Your task to perform on an android device: refresh tabs in the chrome app Image 0: 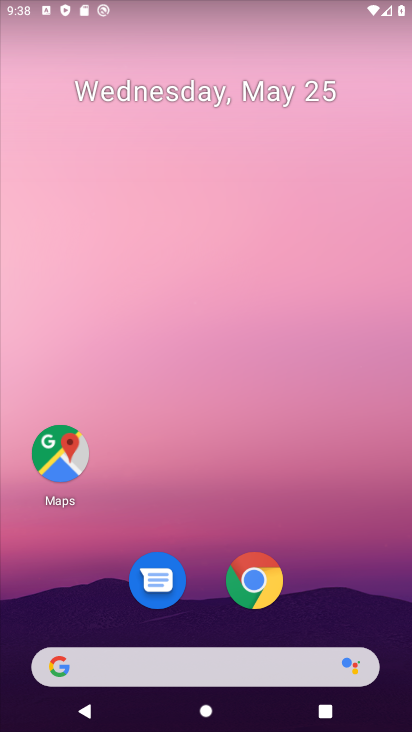
Step 0: press home button
Your task to perform on an android device: refresh tabs in the chrome app Image 1: 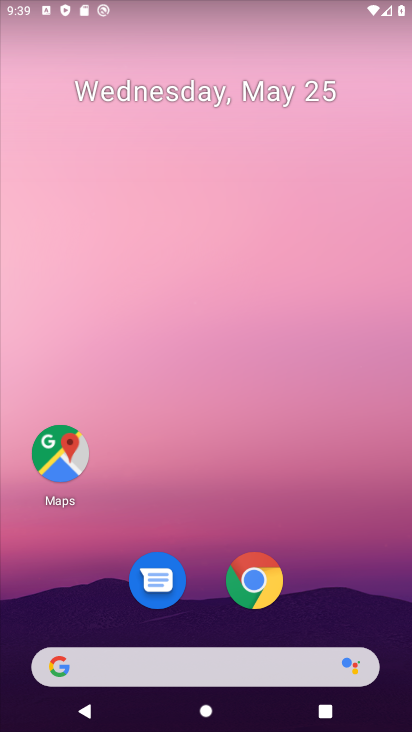
Step 1: click (280, 576)
Your task to perform on an android device: refresh tabs in the chrome app Image 2: 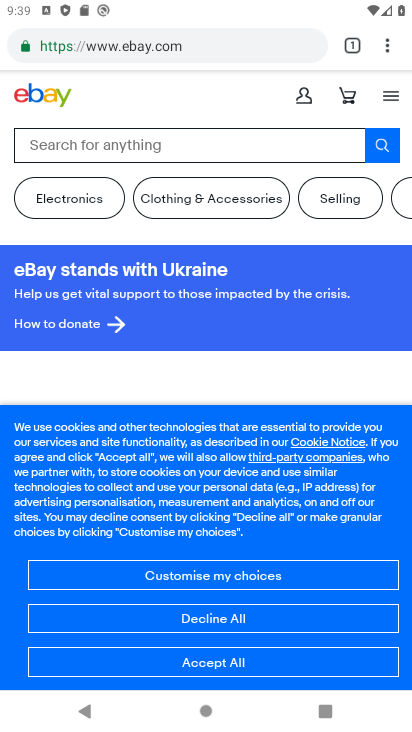
Step 2: click (386, 48)
Your task to perform on an android device: refresh tabs in the chrome app Image 3: 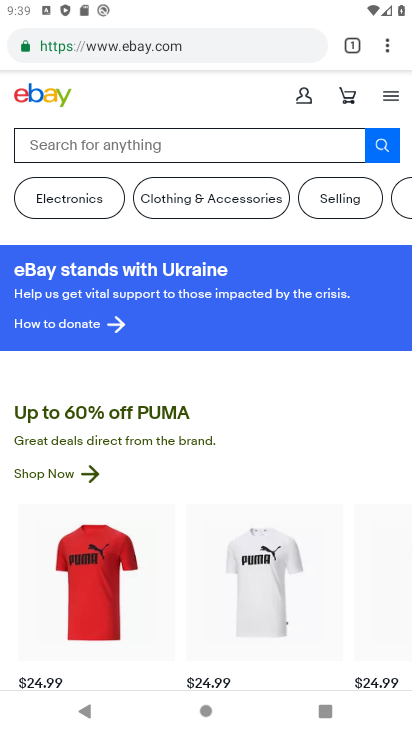
Step 3: click (390, 41)
Your task to perform on an android device: refresh tabs in the chrome app Image 4: 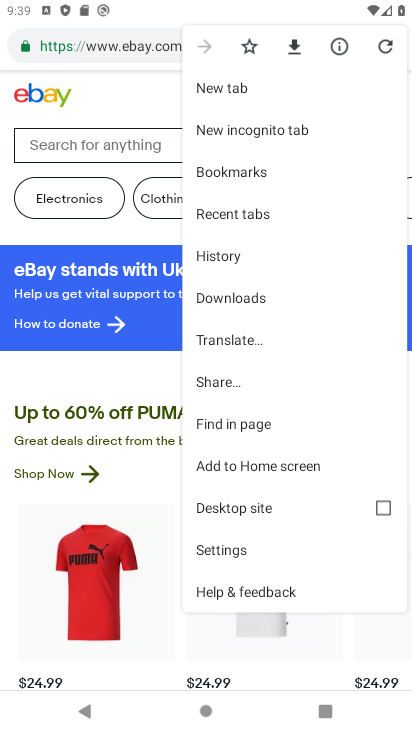
Step 4: click (383, 51)
Your task to perform on an android device: refresh tabs in the chrome app Image 5: 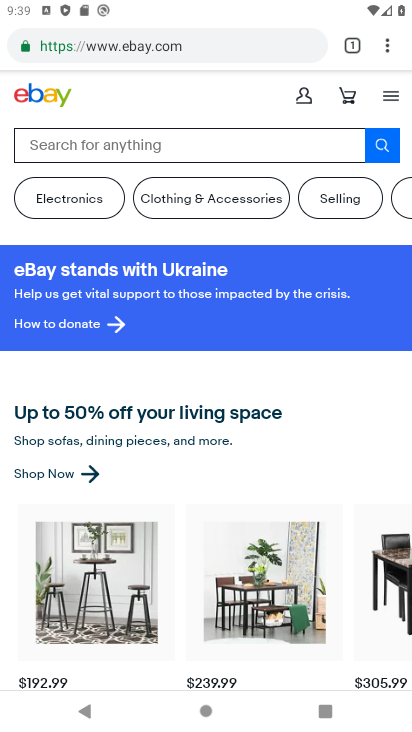
Step 5: task complete